Your task to perform on an android device: Go to battery settings Image 0: 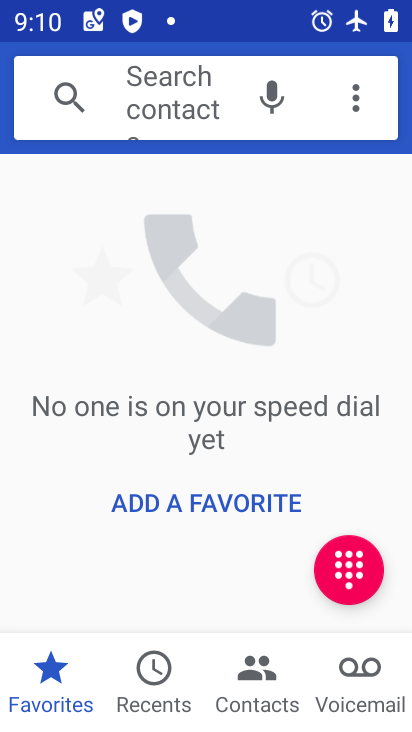
Step 0: press home button
Your task to perform on an android device: Go to battery settings Image 1: 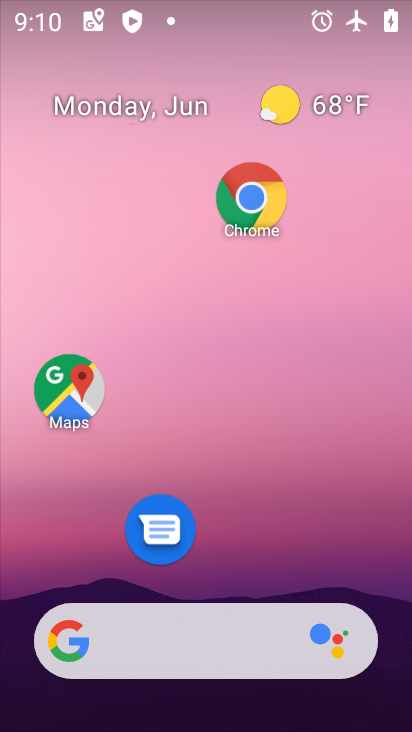
Step 1: drag from (210, 564) to (210, 86)
Your task to perform on an android device: Go to battery settings Image 2: 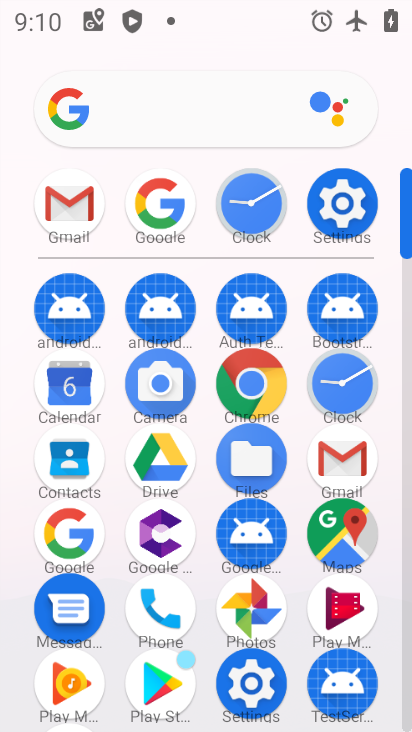
Step 2: click (343, 218)
Your task to perform on an android device: Go to battery settings Image 3: 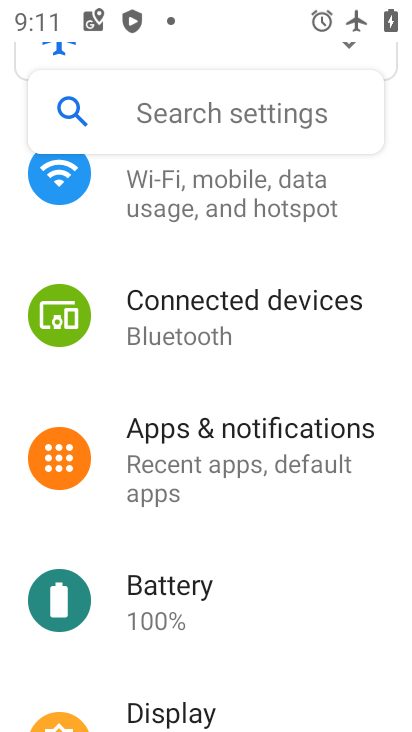
Step 3: click (244, 578)
Your task to perform on an android device: Go to battery settings Image 4: 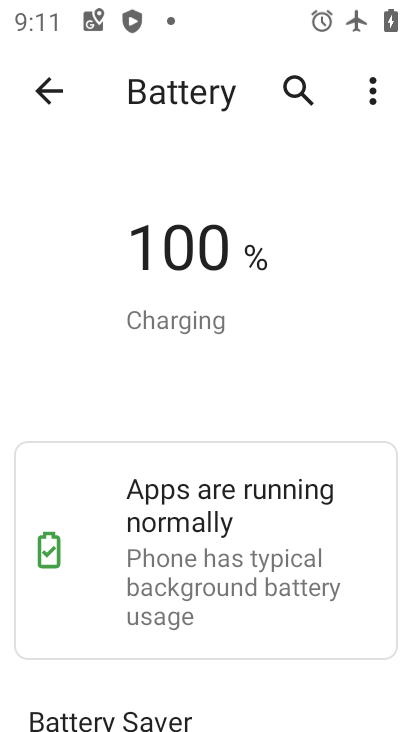
Step 4: task complete